Your task to perform on an android device: toggle show notifications on the lock screen Image 0: 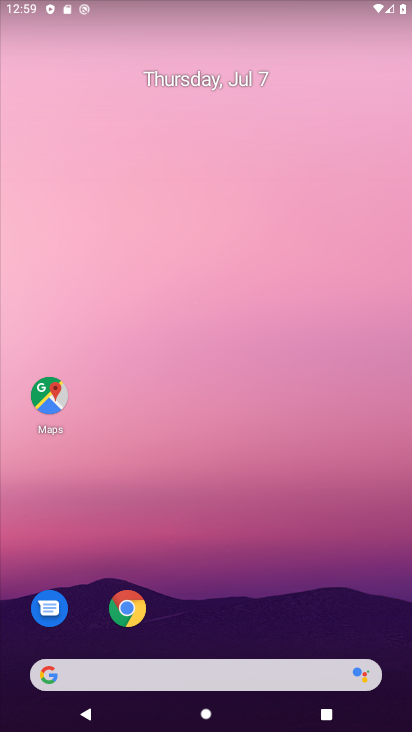
Step 0: drag from (228, 636) to (301, 56)
Your task to perform on an android device: toggle show notifications on the lock screen Image 1: 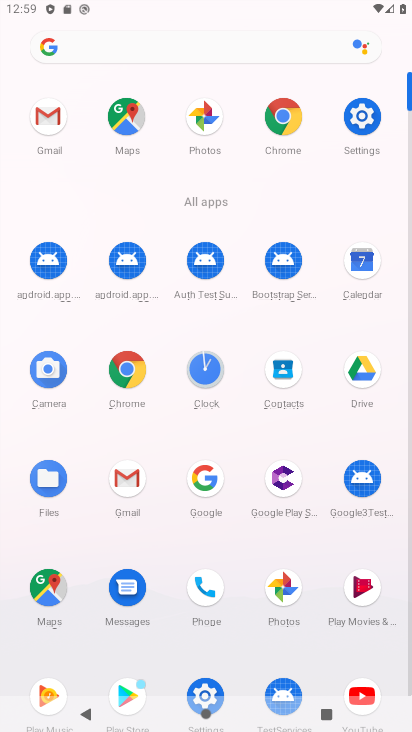
Step 1: click (360, 127)
Your task to perform on an android device: toggle show notifications on the lock screen Image 2: 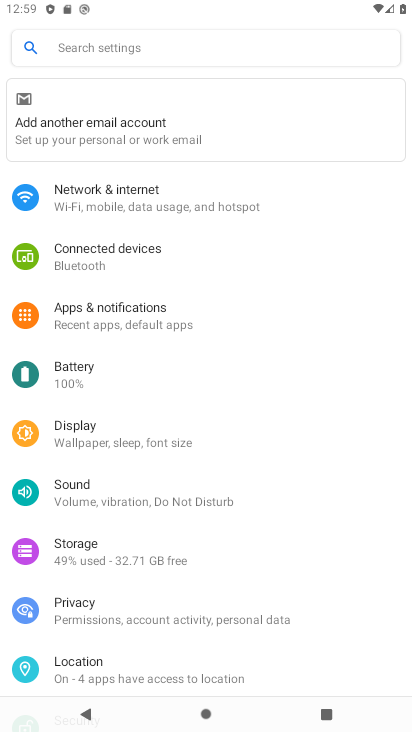
Step 2: click (176, 322)
Your task to perform on an android device: toggle show notifications on the lock screen Image 3: 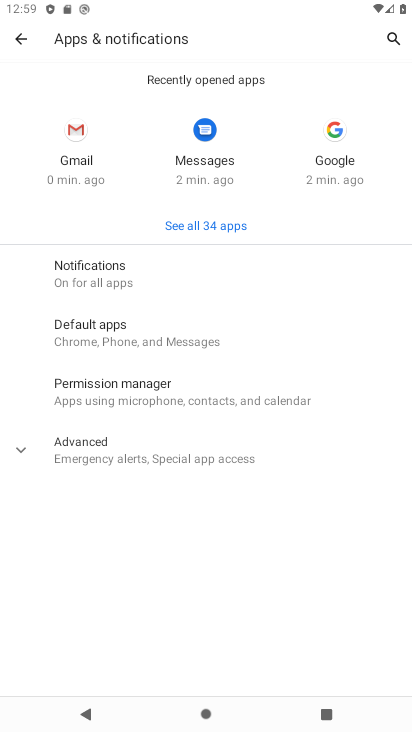
Step 3: click (165, 270)
Your task to perform on an android device: toggle show notifications on the lock screen Image 4: 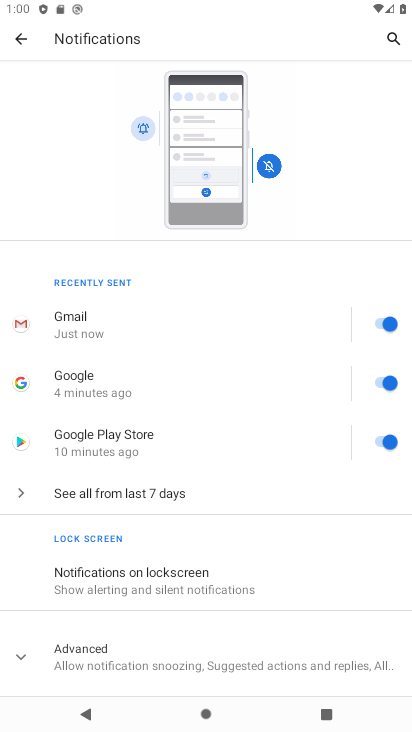
Step 4: click (156, 590)
Your task to perform on an android device: toggle show notifications on the lock screen Image 5: 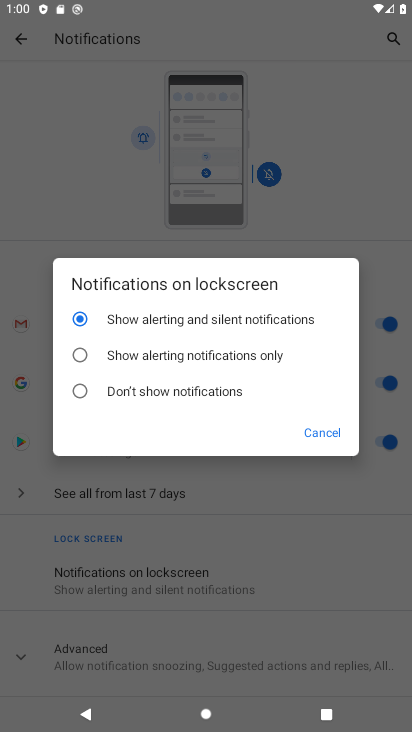
Step 5: task complete